Your task to perform on an android device: Go to eBay Image 0: 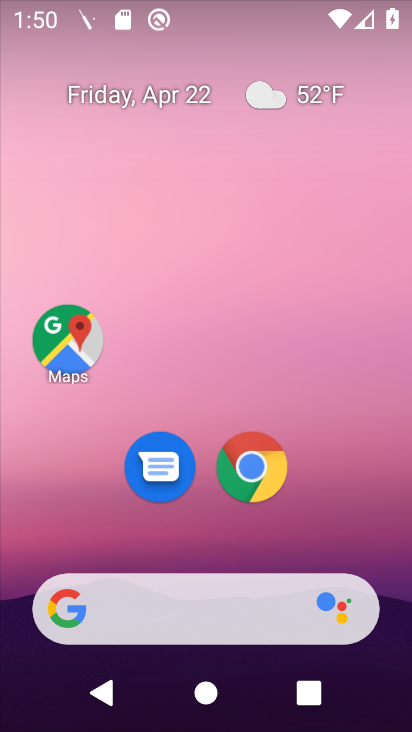
Step 0: click (255, 479)
Your task to perform on an android device: Go to eBay Image 1: 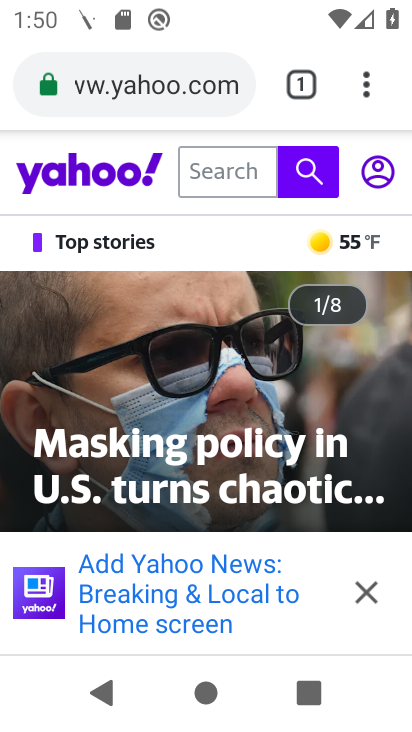
Step 1: click (166, 88)
Your task to perform on an android device: Go to eBay Image 2: 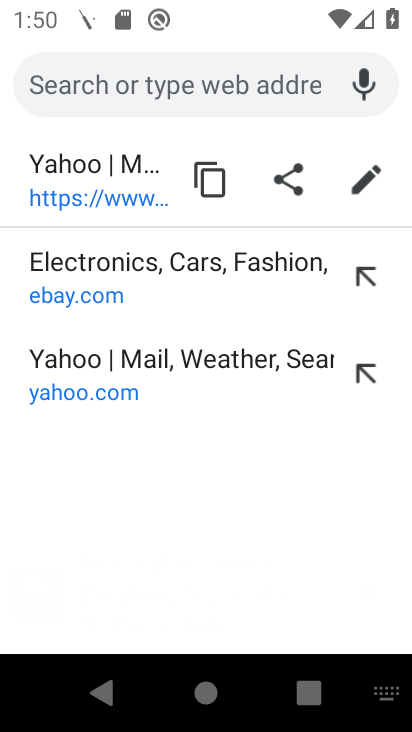
Step 2: type "ebay"
Your task to perform on an android device: Go to eBay Image 3: 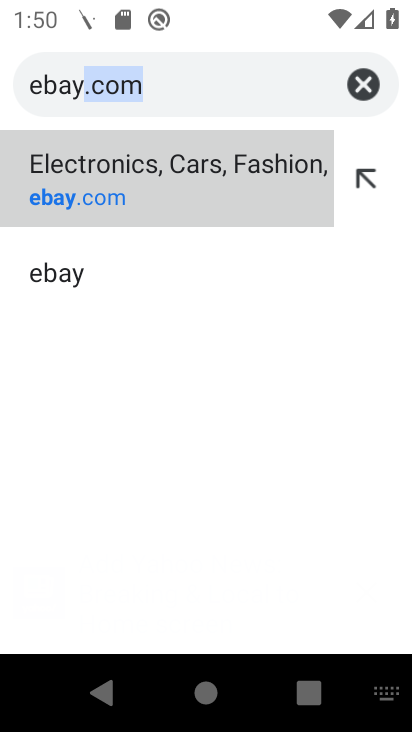
Step 3: click (74, 211)
Your task to perform on an android device: Go to eBay Image 4: 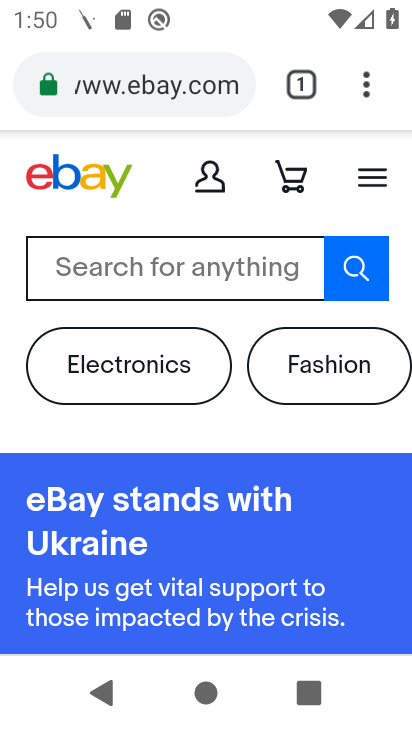
Step 4: task complete